Your task to perform on an android device: Open calendar and show me the second week of next month Image 0: 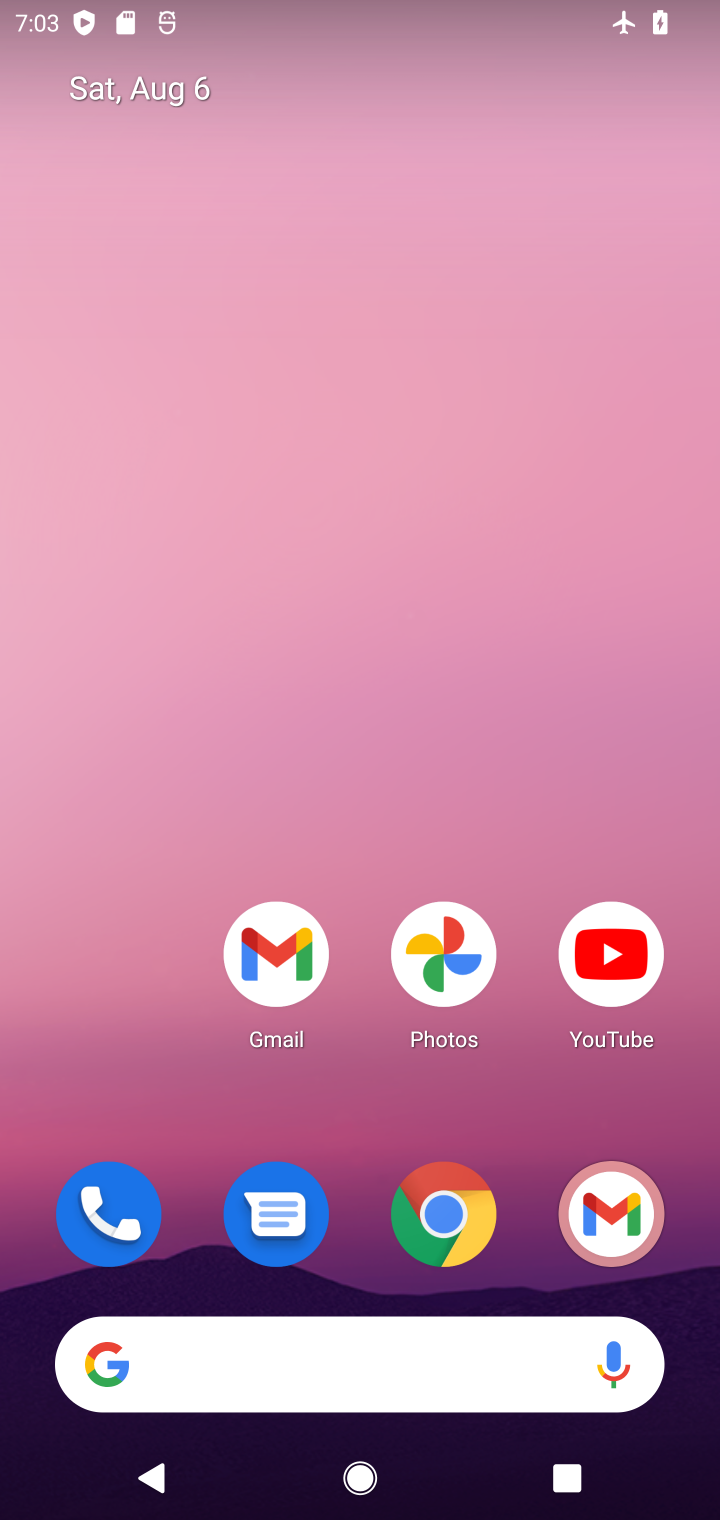
Step 0: drag from (306, 810) to (202, 0)
Your task to perform on an android device: Open calendar and show me the second week of next month Image 1: 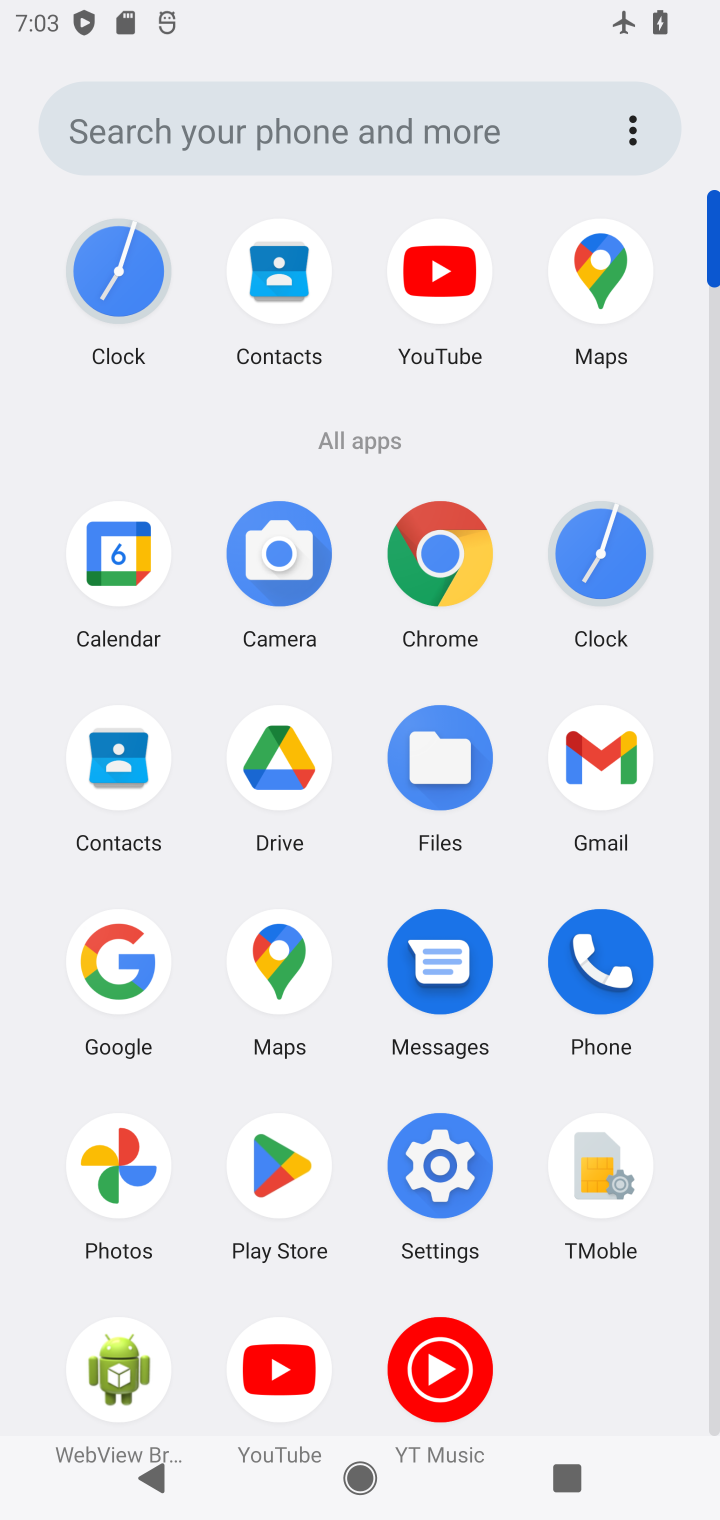
Step 1: click (123, 540)
Your task to perform on an android device: Open calendar and show me the second week of next month Image 2: 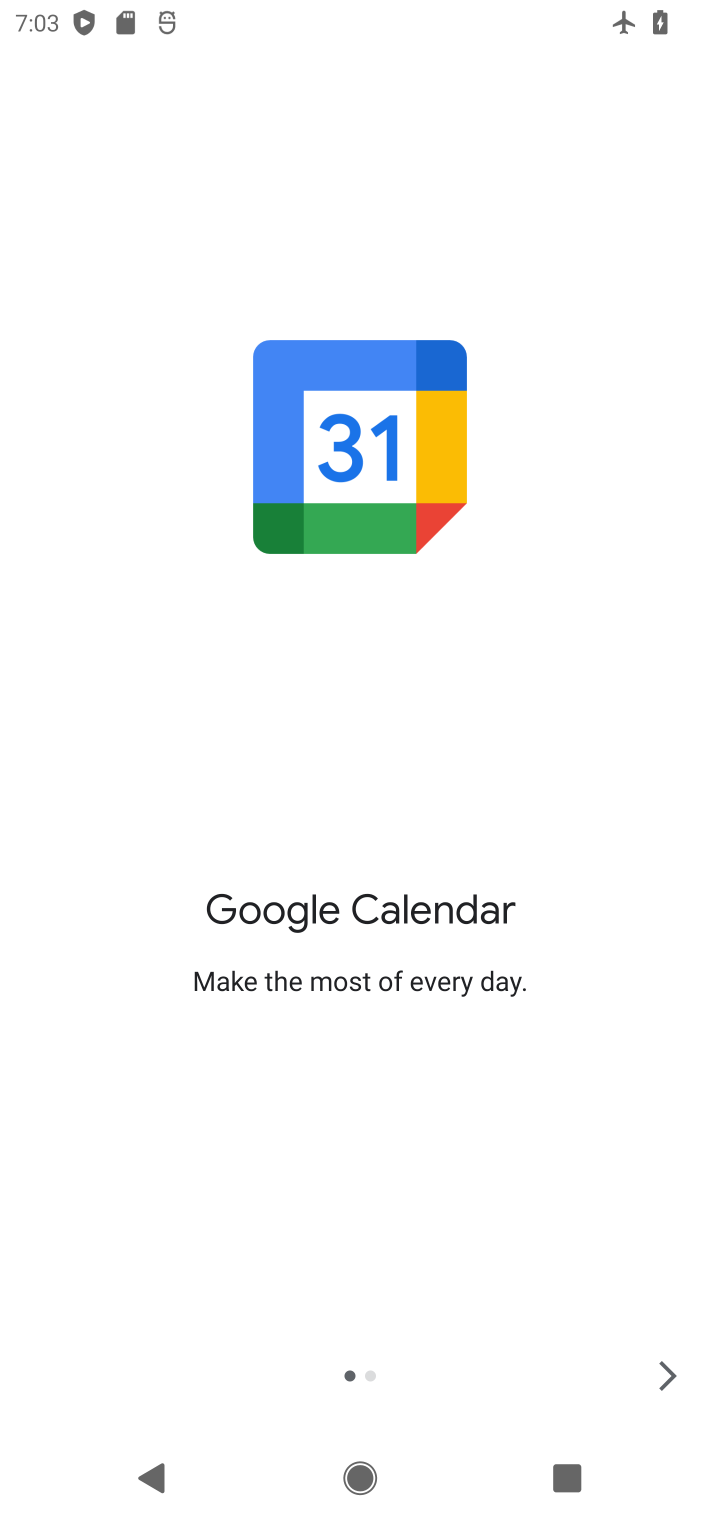
Step 2: click (675, 1367)
Your task to perform on an android device: Open calendar and show me the second week of next month Image 3: 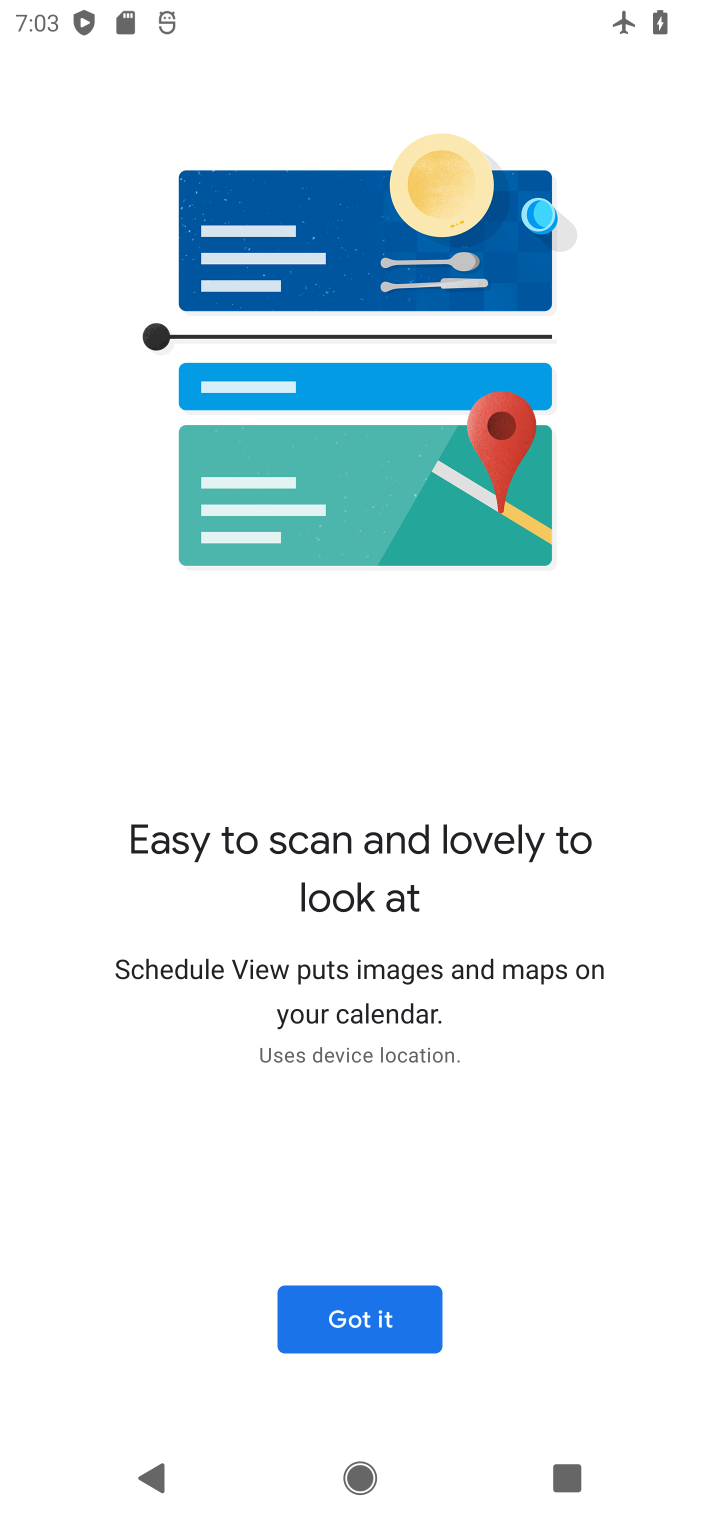
Step 3: click (417, 1316)
Your task to perform on an android device: Open calendar and show me the second week of next month Image 4: 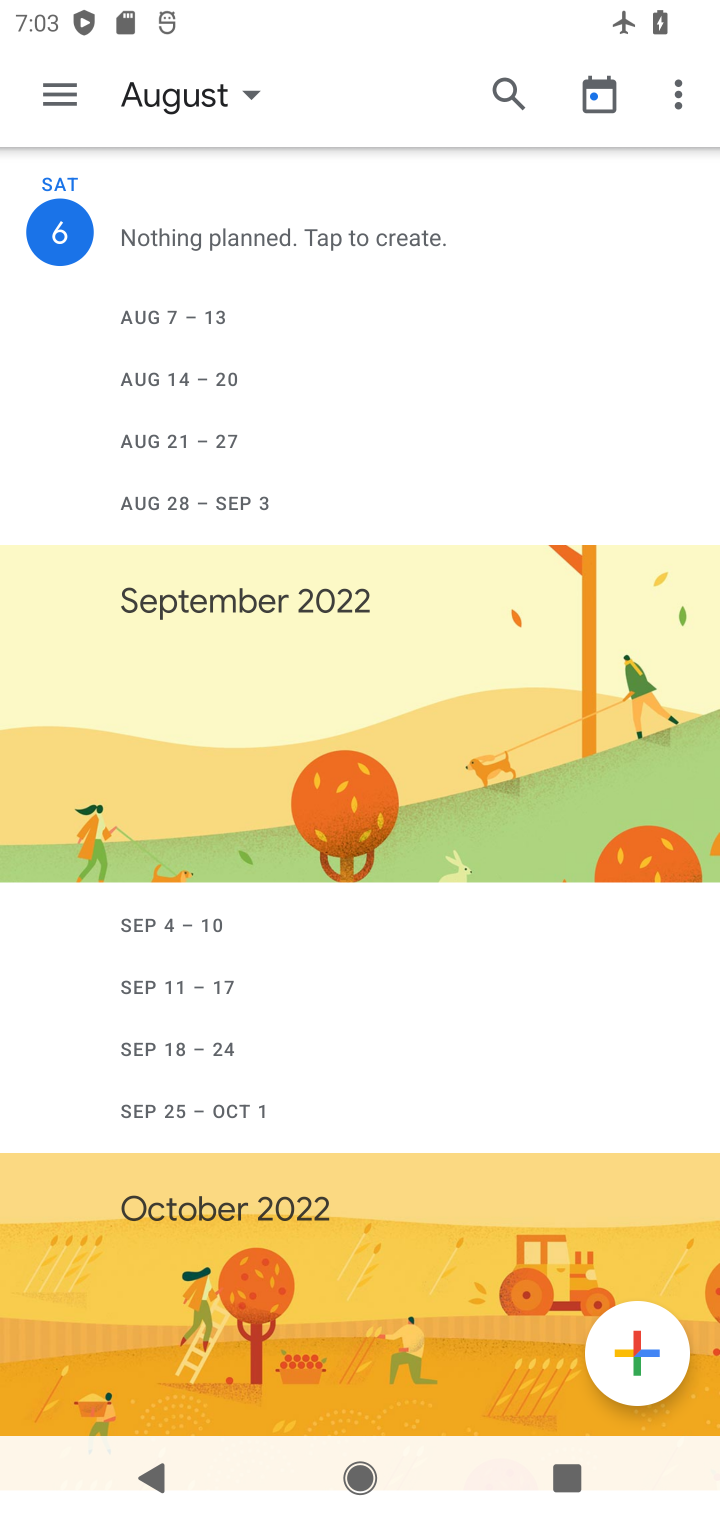
Step 4: click (222, 83)
Your task to perform on an android device: Open calendar and show me the second week of next month Image 5: 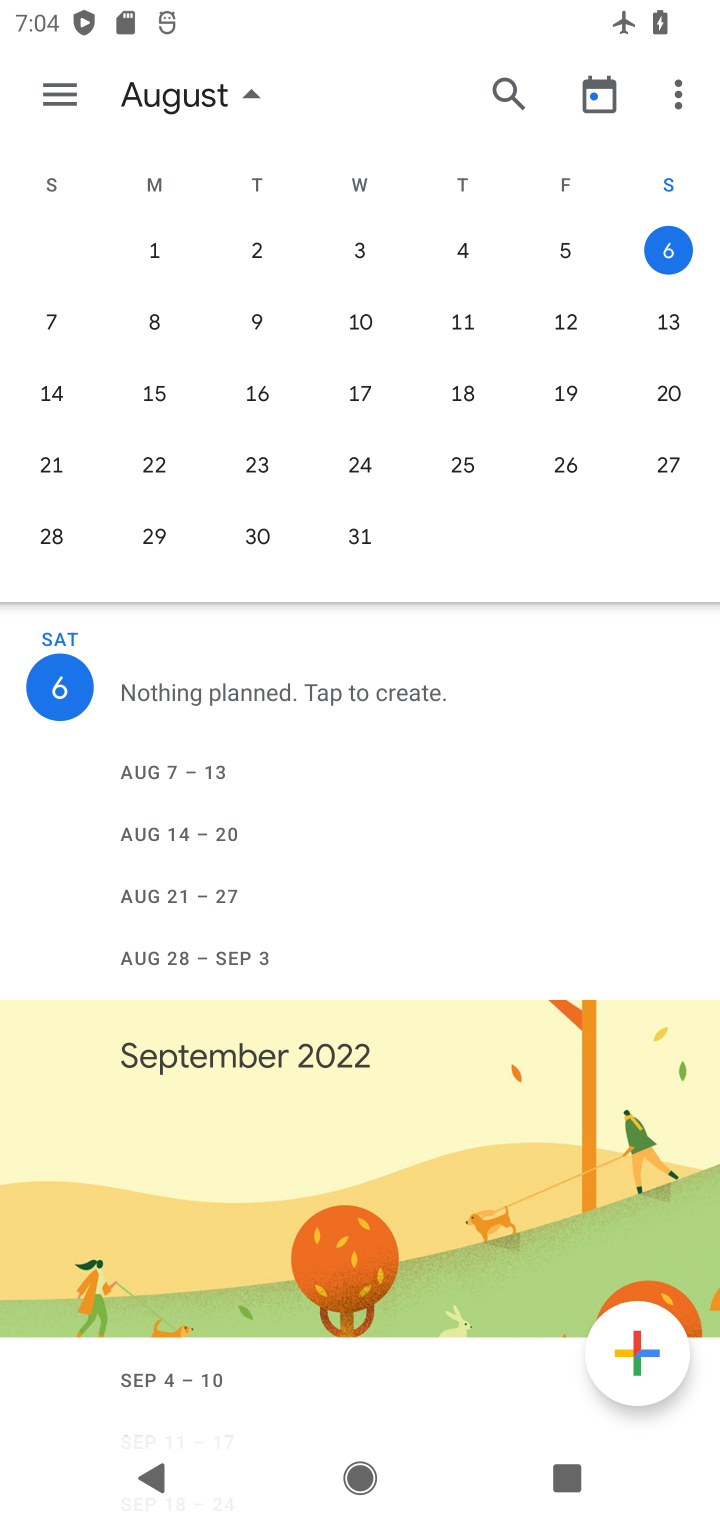
Step 5: drag from (619, 388) to (27, 118)
Your task to perform on an android device: Open calendar and show me the second week of next month Image 6: 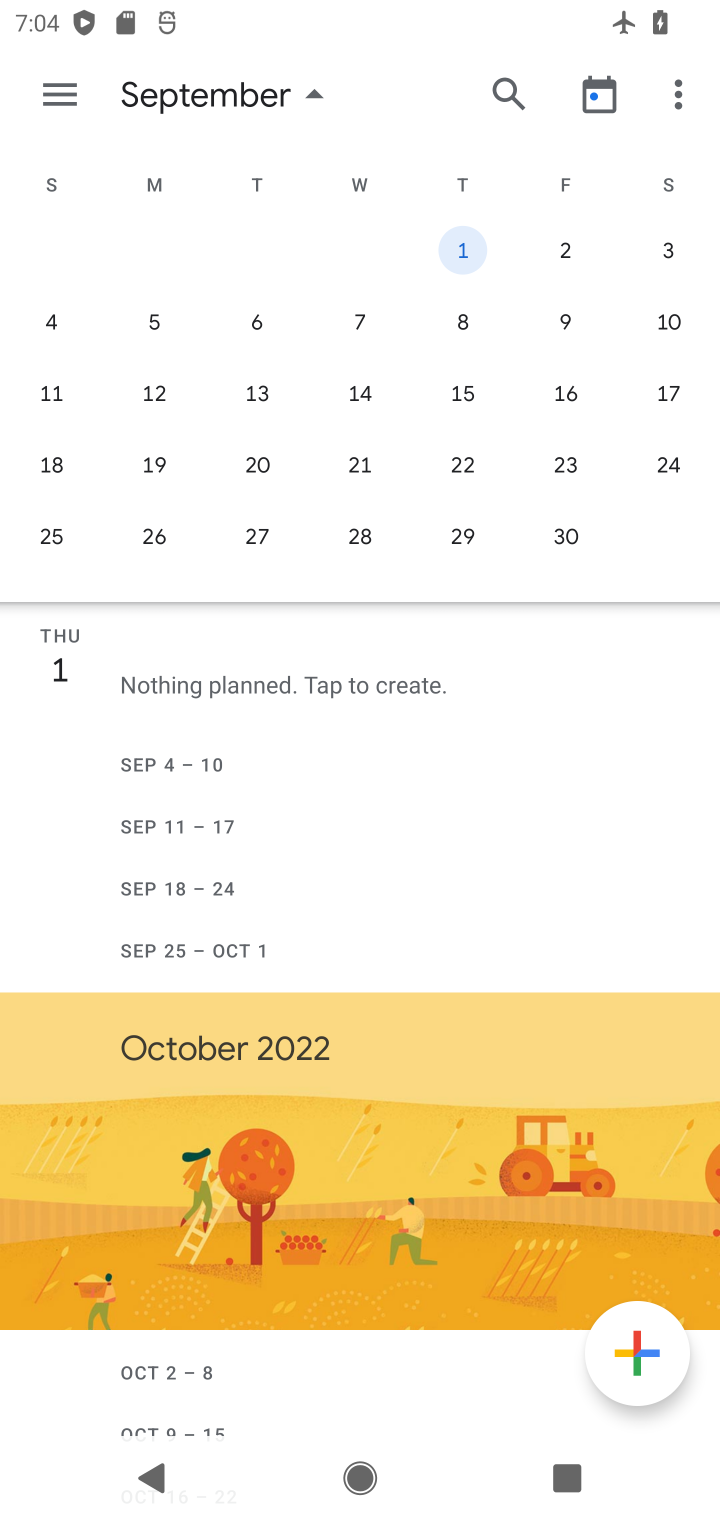
Step 6: click (60, 83)
Your task to perform on an android device: Open calendar and show me the second week of next month Image 7: 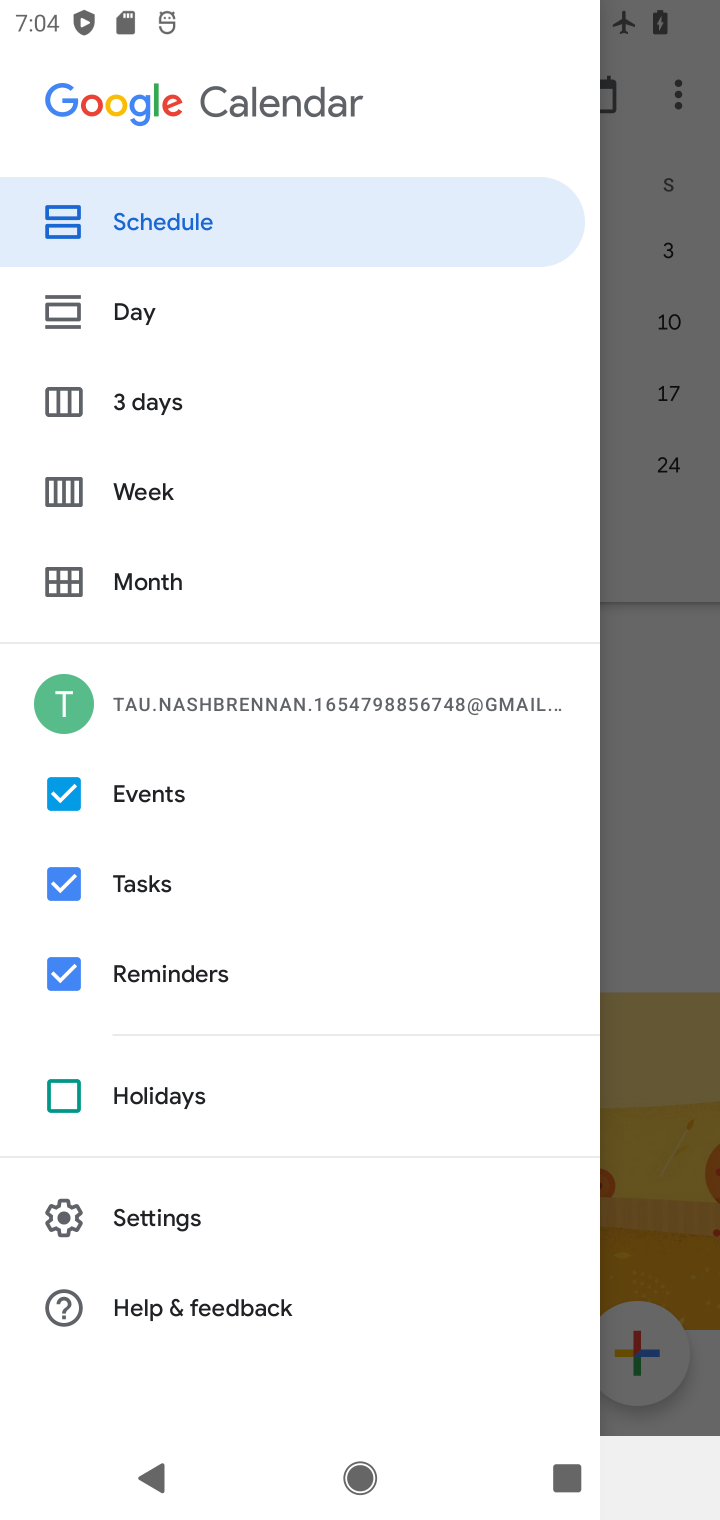
Step 7: click (159, 487)
Your task to perform on an android device: Open calendar and show me the second week of next month Image 8: 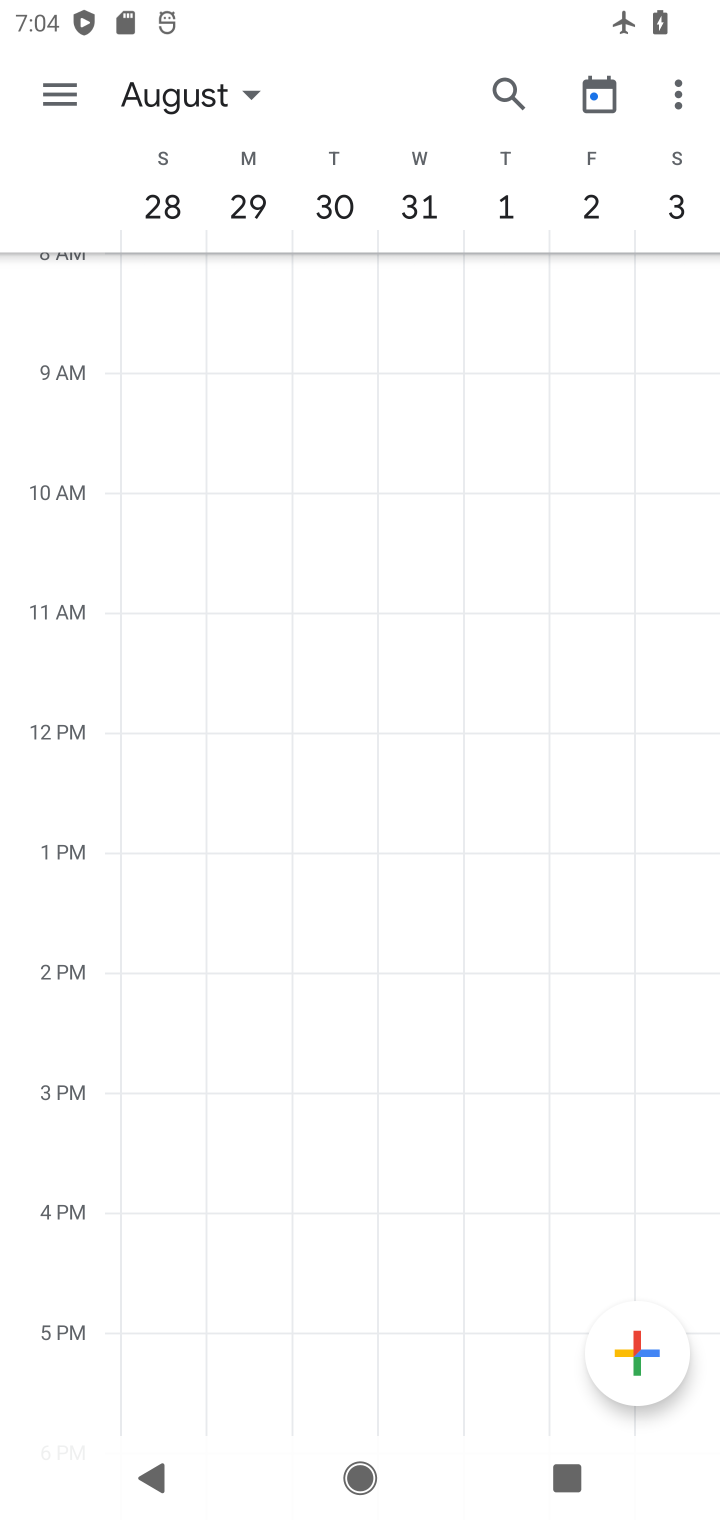
Step 8: drag from (649, 208) to (1, 147)
Your task to perform on an android device: Open calendar and show me the second week of next month Image 9: 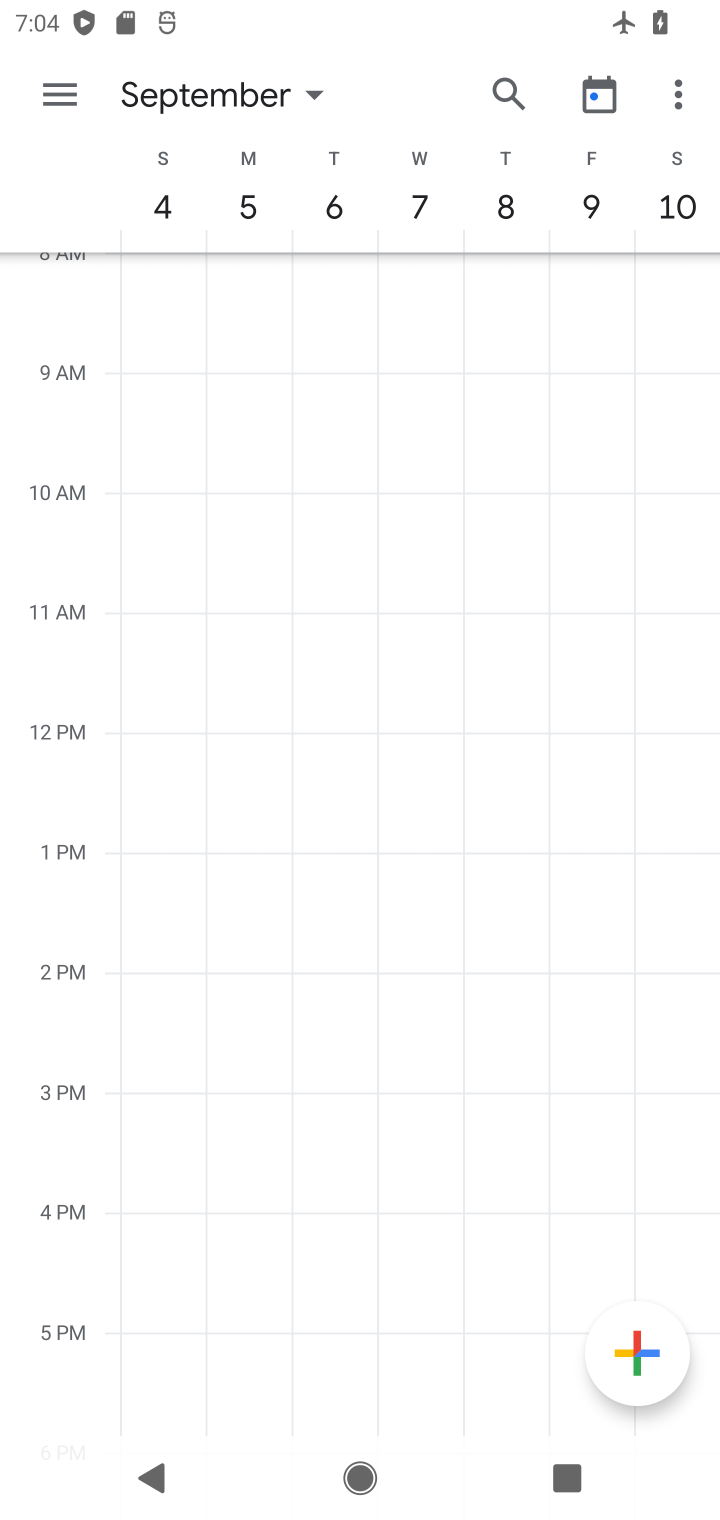
Step 9: click (608, 198)
Your task to perform on an android device: Open calendar and show me the second week of next month Image 10: 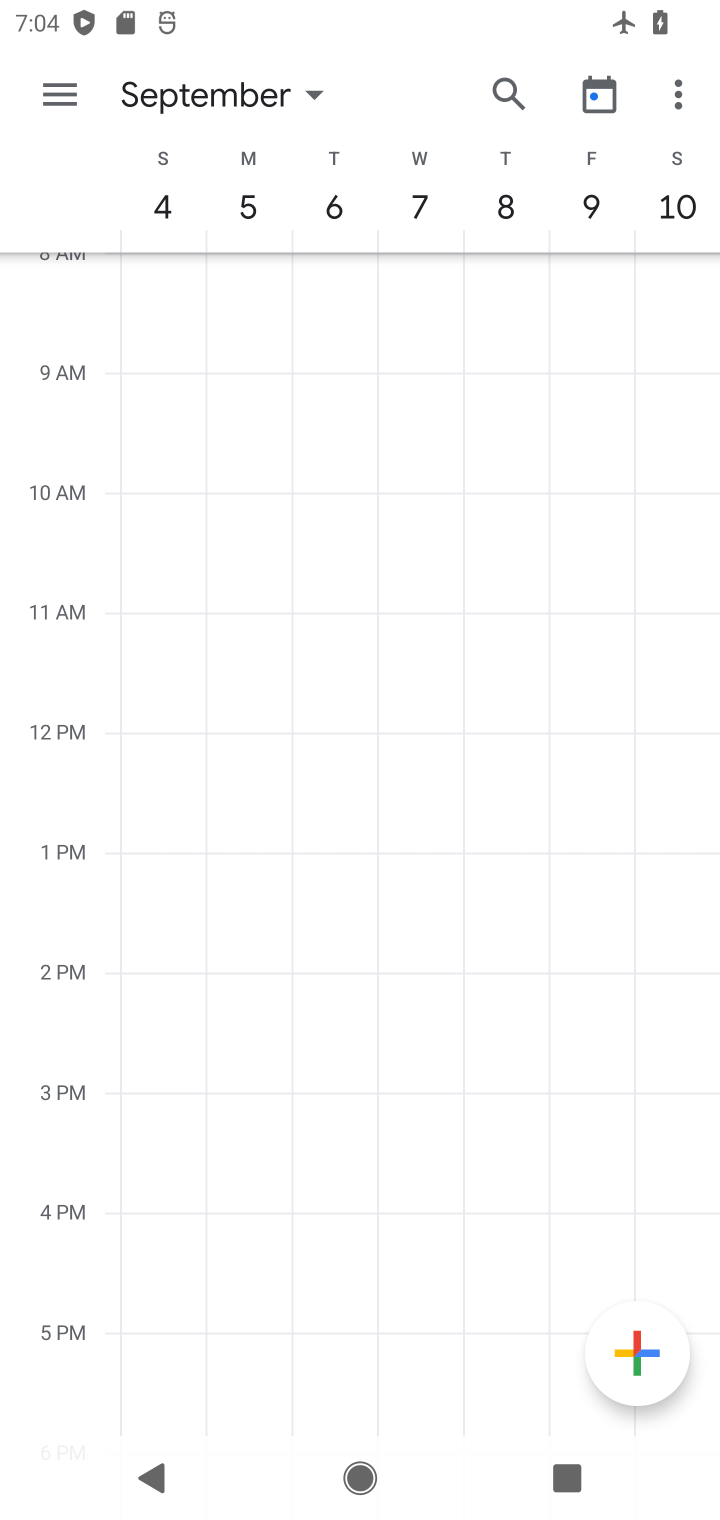
Step 10: task complete